Your task to perform on an android device: empty trash in google photos Image 0: 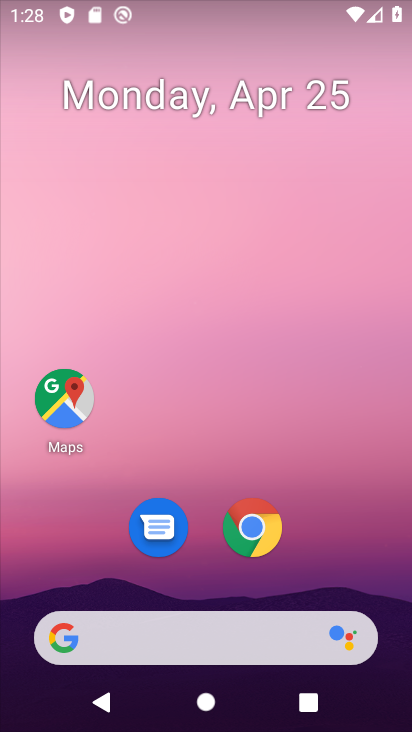
Step 0: drag from (376, 533) to (238, 95)
Your task to perform on an android device: empty trash in google photos Image 1: 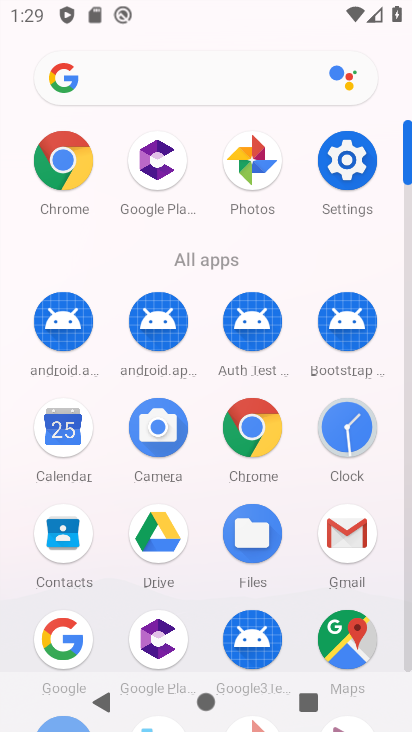
Step 1: click (404, 671)
Your task to perform on an android device: empty trash in google photos Image 2: 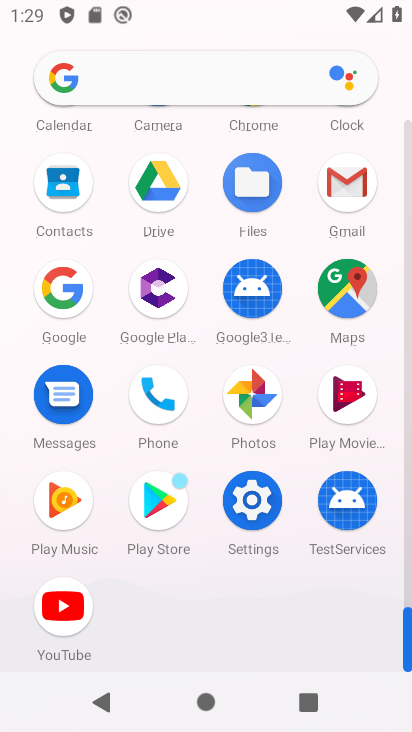
Step 2: click (259, 407)
Your task to perform on an android device: empty trash in google photos Image 3: 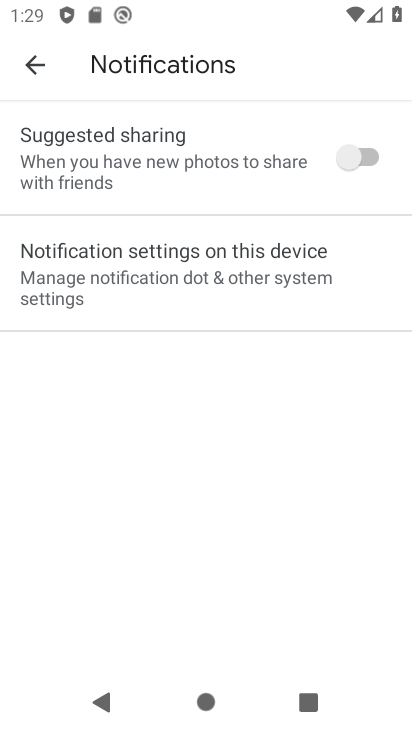
Step 3: press back button
Your task to perform on an android device: empty trash in google photos Image 4: 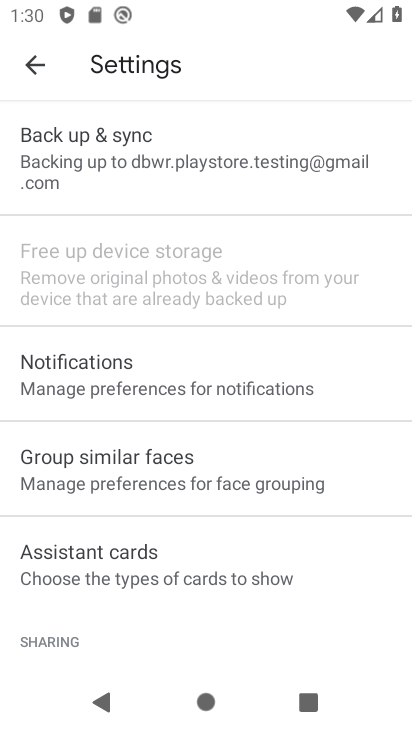
Step 4: press back button
Your task to perform on an android device: empty trash in google photos Image 5: 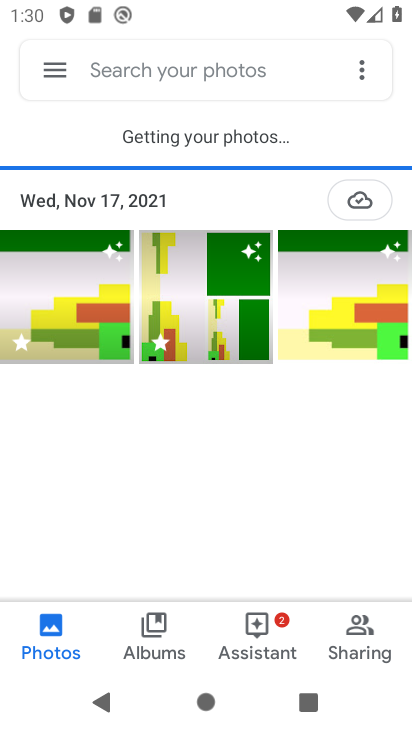
Step 5: click (49, 65)
Your task to perform on an android device: empty trash in google photos Image 6: 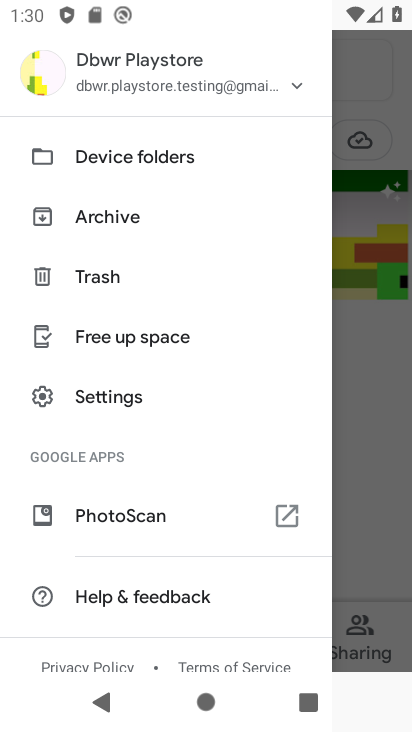
Step 6: click (120, 264)
Your task to perform on an android device: empty trash in google photos Image 7: 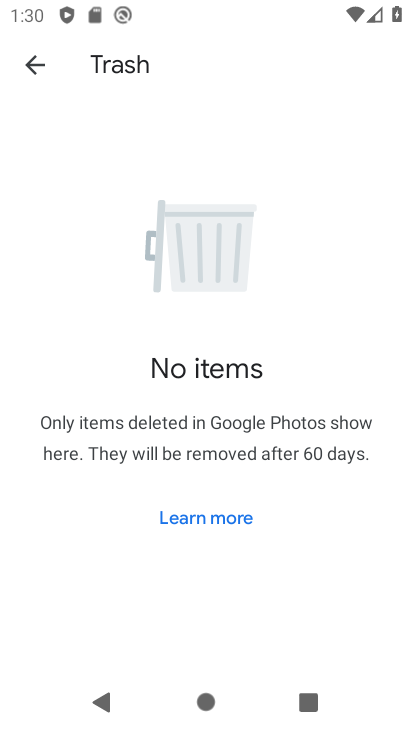
Step 7: task complete